Your task to perform on an android device: Open Wikipedia Image 0: 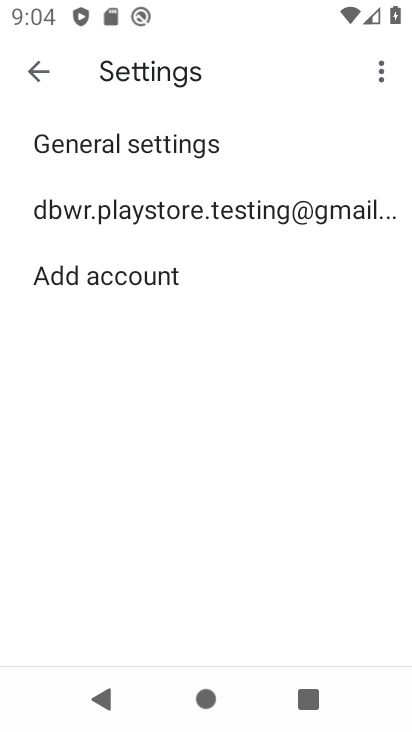
Step 0: press home button
Your task to perform on an android device: Open Wikipedia Image 1: 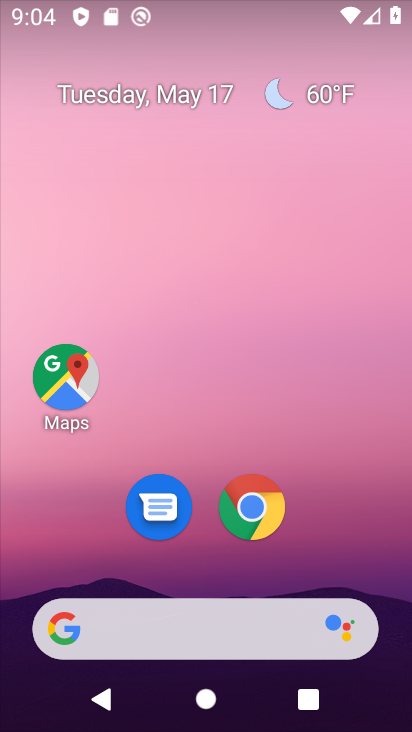
Step 1: click (252, 501)
Your task to perform on an android device: Open Wikipedia Image 2: 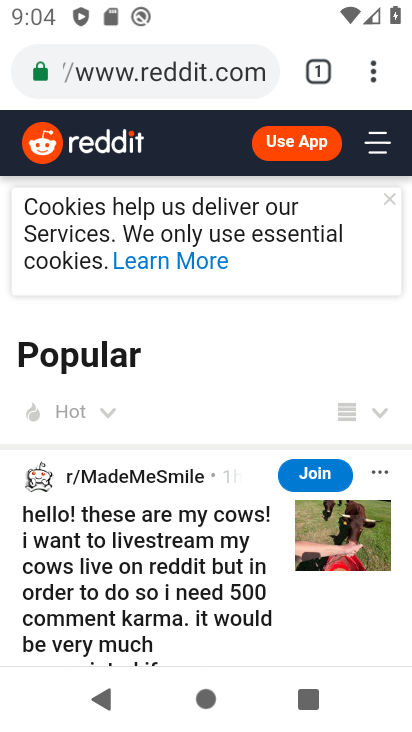
Step 2: drag from (376, 63) to (261, 145)
Your task to perform on an android device: Open Wikipedia Image 3: 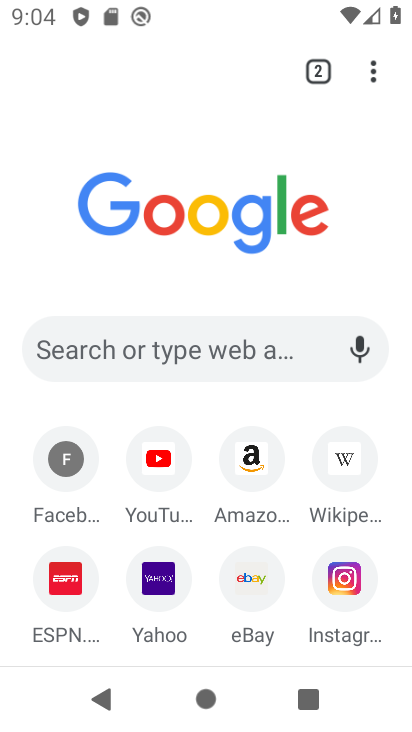
Step 3: click (332, 458)
Your task to perform on an android device: Open Wikipedia Image 4: 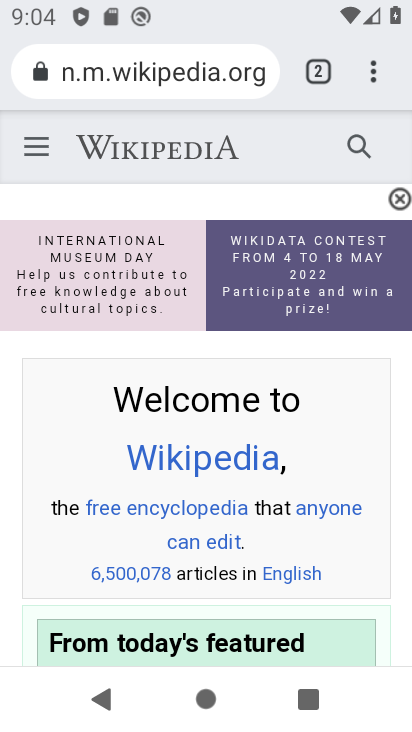
Step 4: task complete